Your task to perform on an android device: Open the stopwatch Image 0: 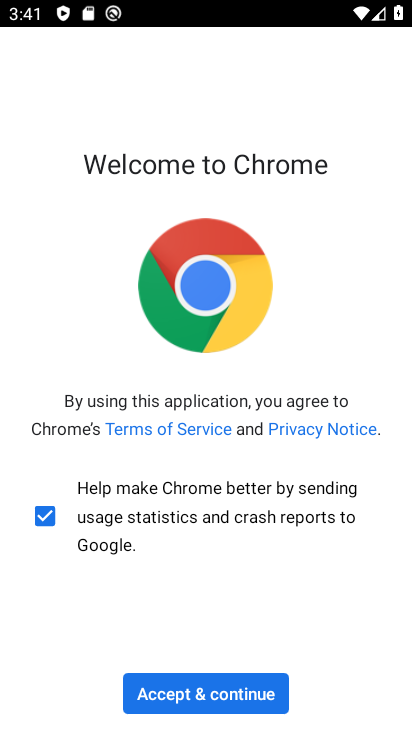
Step 0: press home button
Your task to perform on an android device: Open the stopwatch Image 1: 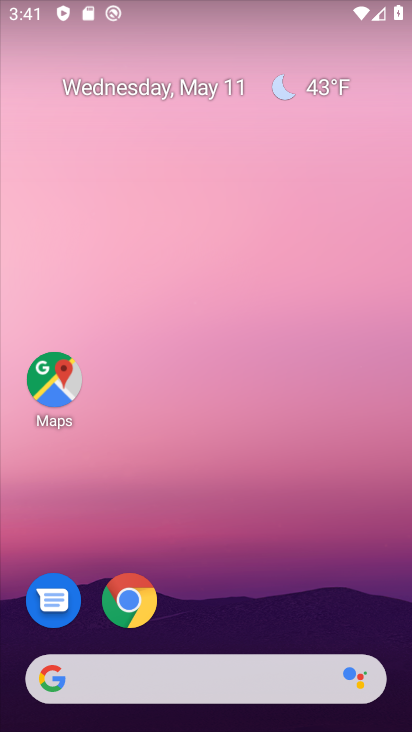
Step 1: drag from (326, 618) to (187, 1)
Your task to perform on an android device: Open the stopwatch Image 2: 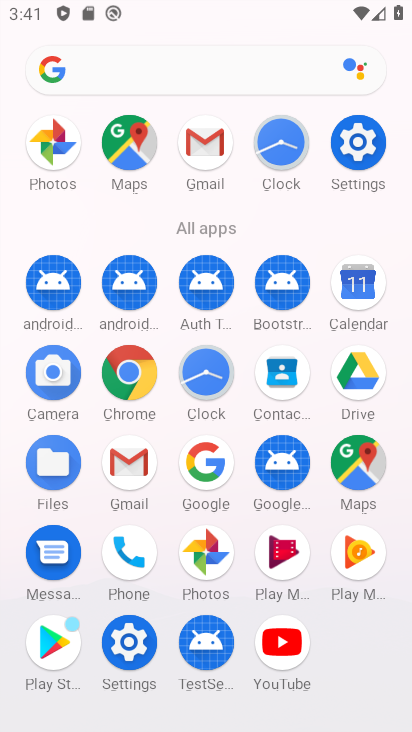
Step 2: click (277, 140)
Your task to perform on an android device: Open the stopwatch Image 3: 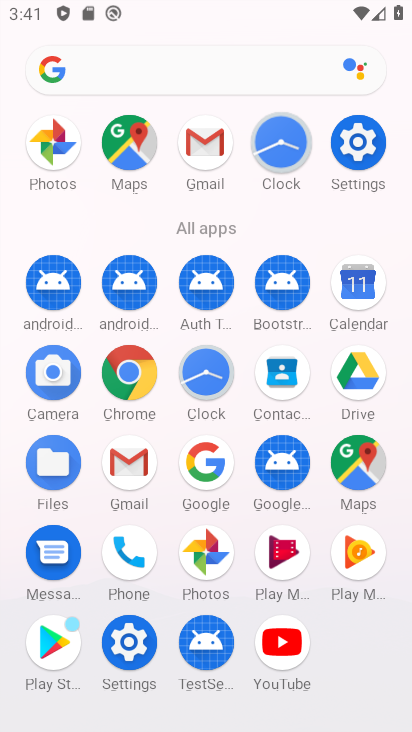
Step 3: click (282, 138)
Your task to perform on an android device: Open the stopwatch Image 4: 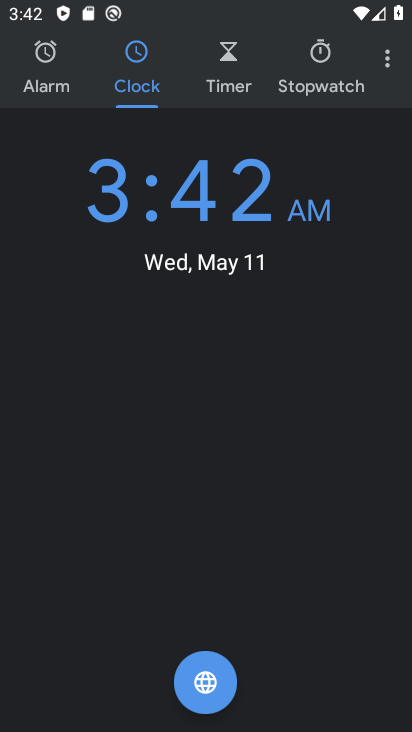
Step 4: click (385, 55)
Your task to perform on an android device: Open the stopwatch Image 5: 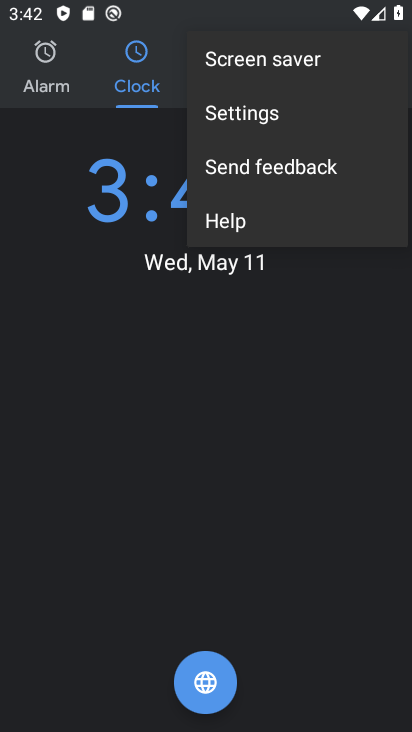
Step 5: click (257, 384)
Your task to perform on an android device: Open the stopwatch Image 6: 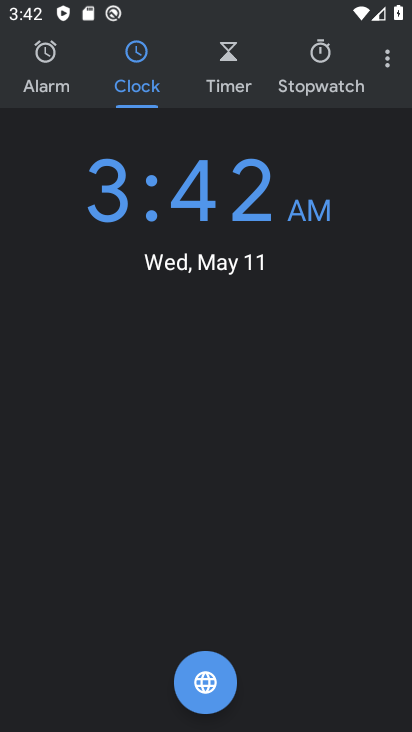
Step 6: click (335, 59)
Your task to perform on an android device: Open the stopwatch Image 7: 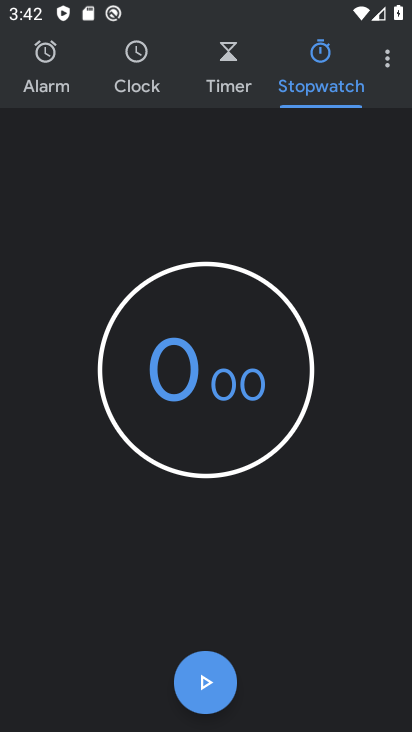
Step 7: click (203, 675)
Your task to perform on an android device: Open the stopwatch Image 8: 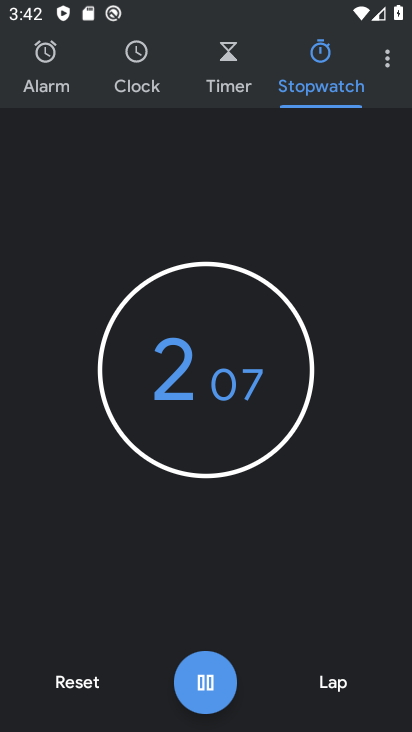
Step 8: click (211, 678)
Your task to perform on an android device: Open the stopwatch Image 9: 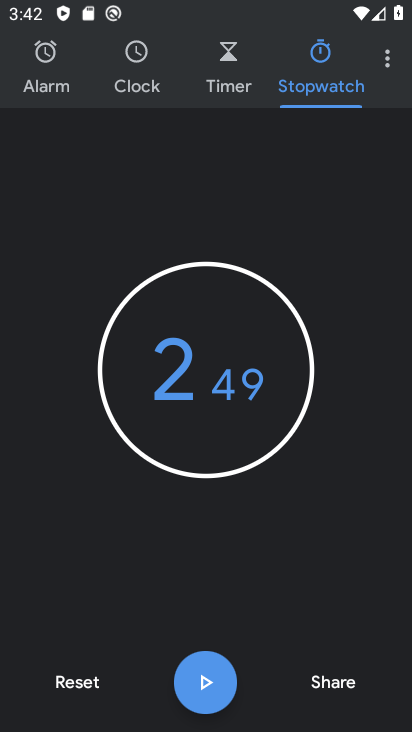
Step 9: press home button
Your task to perform on an android device: Open the stopwatch Image 10: 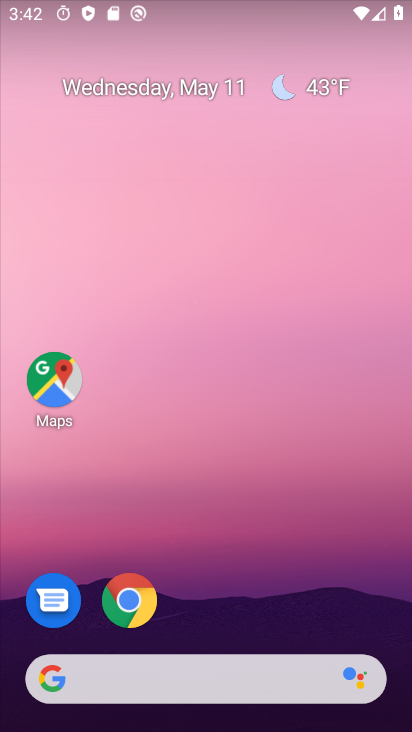
Step 10: drag from (220, 359) to (157, 20)
Your task to perform on an android device: Open the stopwatch Image 11: 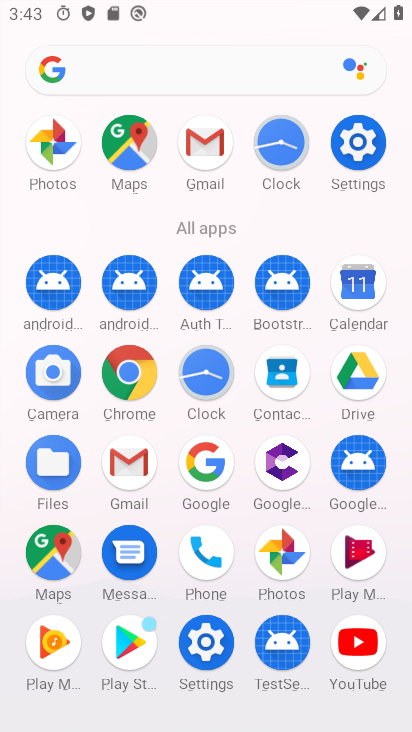
Step 11: click (289, 145)
Your task to perform on an android device: Open the stopwatch Image 12: 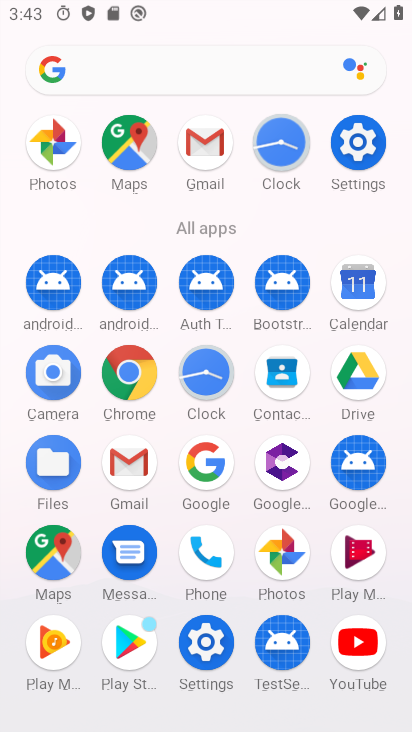
Step 12: click (286, 146)
Your task to perform on an android device: Open the stopwatch Image 13: 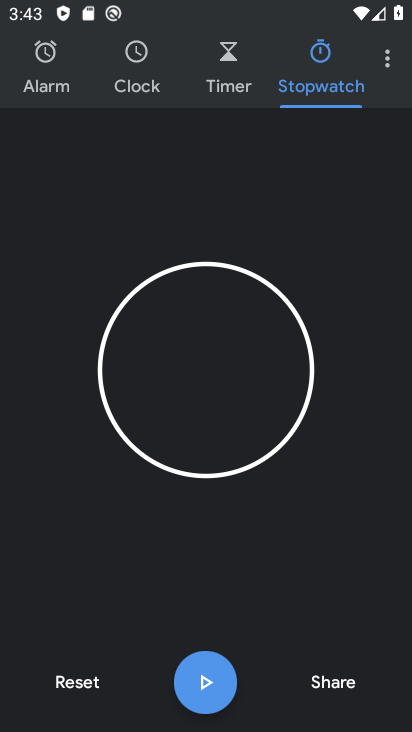
Step 13: click (200, 678)
Your task to perform on an android device: Open the stopwatch Image 14: 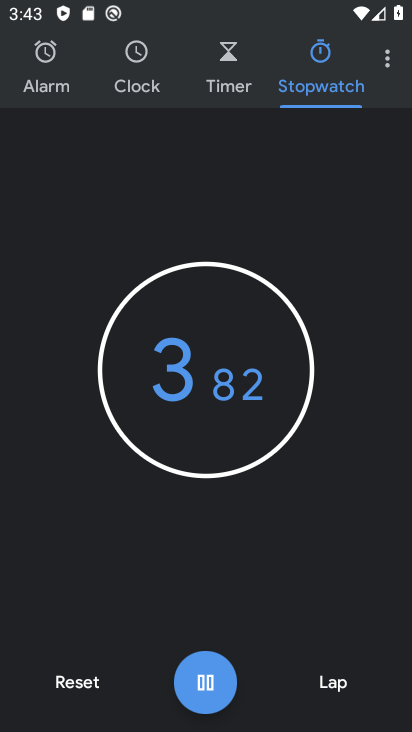
Step 14: click (197, 680)
Your task to perform on an android device: Open the stopwatch Image 15: 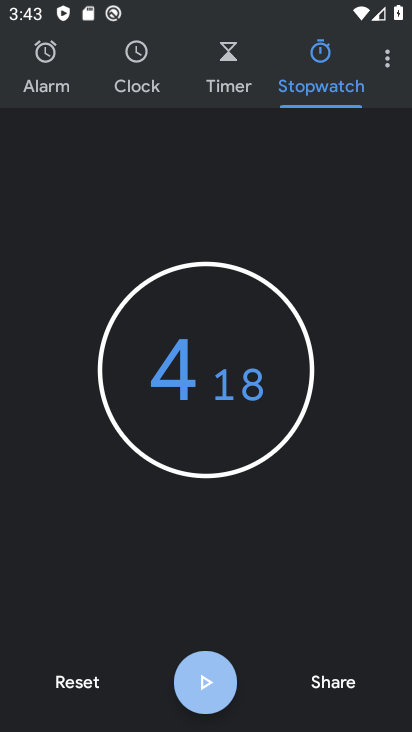
Step 15: click (197, 680)
Your task to perform on an android device: Open the stopwatch Image 16: 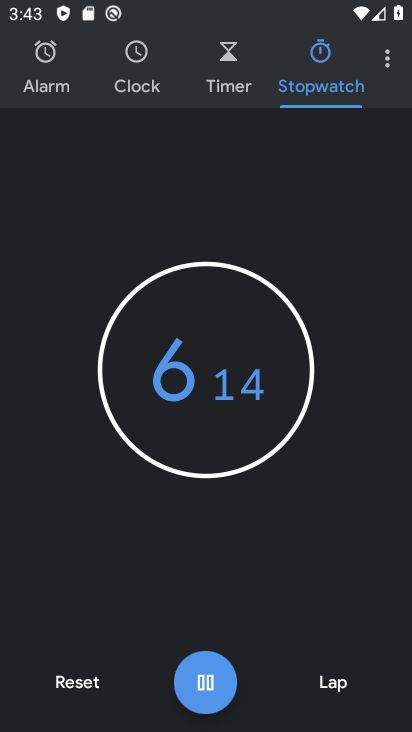
Step 16: click (208, 688)
Your task to perform on an android device: Open the stopwatch Image 17: 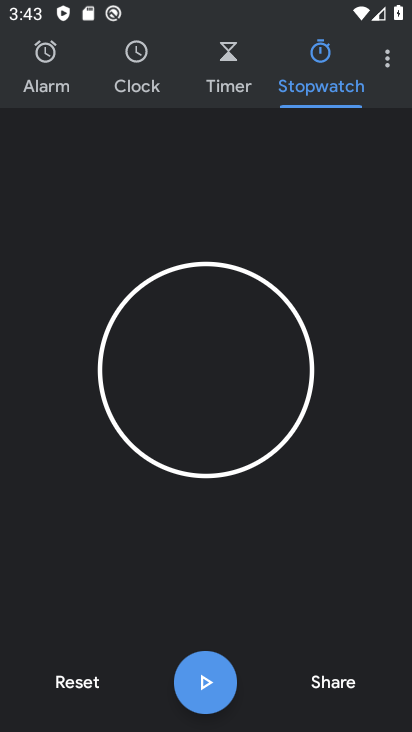
Step 17: task complete